Your task to perform on an android device: search for starred emails in the gmail app Image 0: 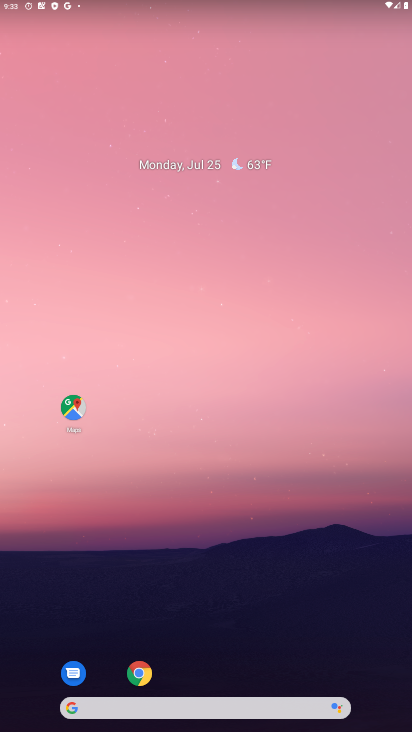
Step 0: click (397, 544)
Your task to perform on an android device: search for starred emails in the gmail app Image 1: 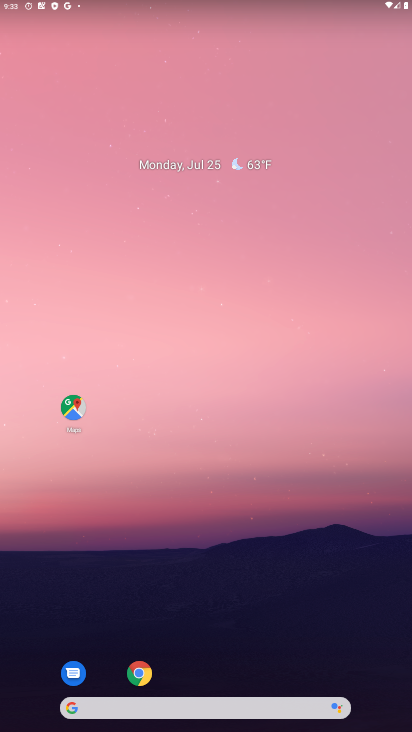
Step 1: drag from (244, 398) to (276, 311)
Your task to perform on an android device: search for starred emails in the gmail app Image 2: 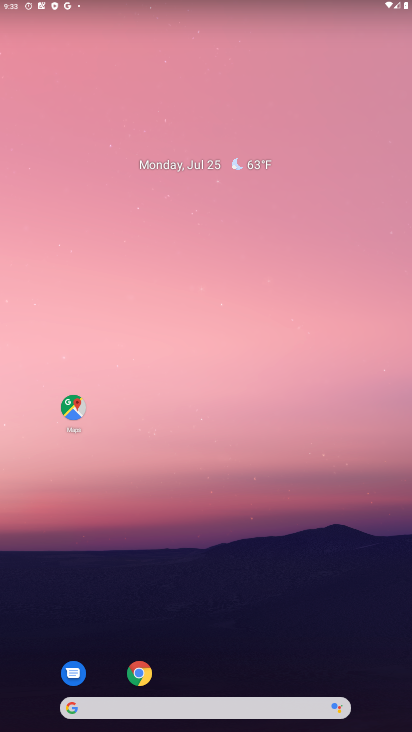
Step 2: drag from (220, 641) to (255, 258)
Your task to perform on an android device: search for starred emails in the gmail app Image 3: 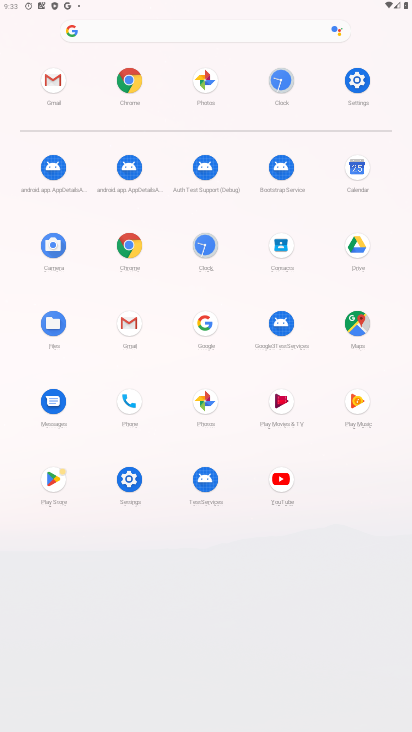
Step 3: click (118, 322)
Your task to perform on an android device: search for starred emails in the gmail app Image 4: 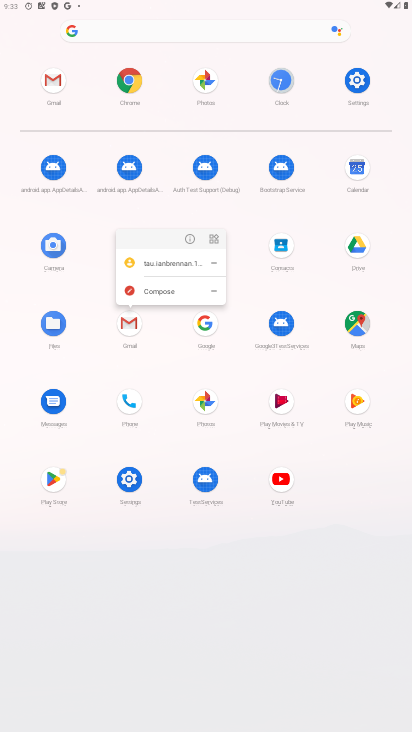
Step 4: click (187, 233)
Your task to perform on an android device: search for starred emails in the gmail app Image 5: 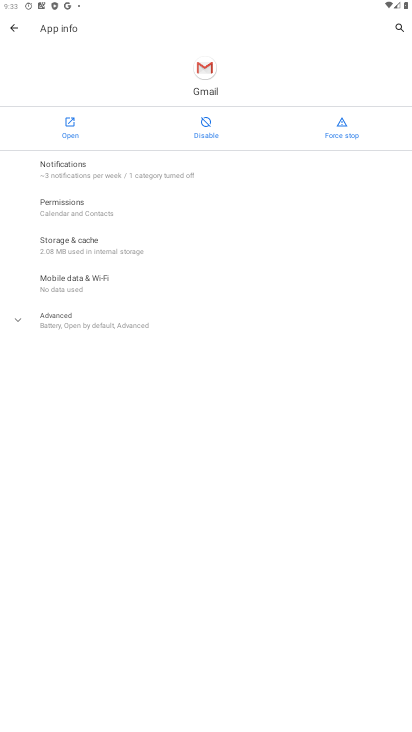
Step 5: click (62, 129)
Your task to perform on an android device: search for starred emails in the gmail app Image 6: 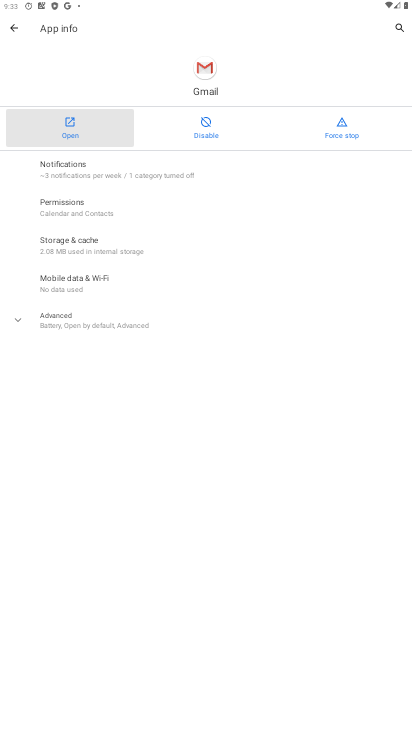
Step 6: click (62, 129)
Your task to perform on an android device: search for starred emails in the gmail app Image 7: 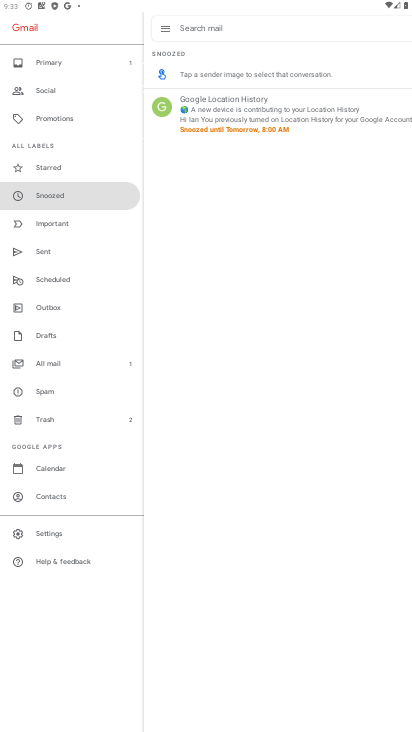
Step 7: click (75, 171)
Your task to perform on an android device: search for starred emails in the gmail app Image 8: 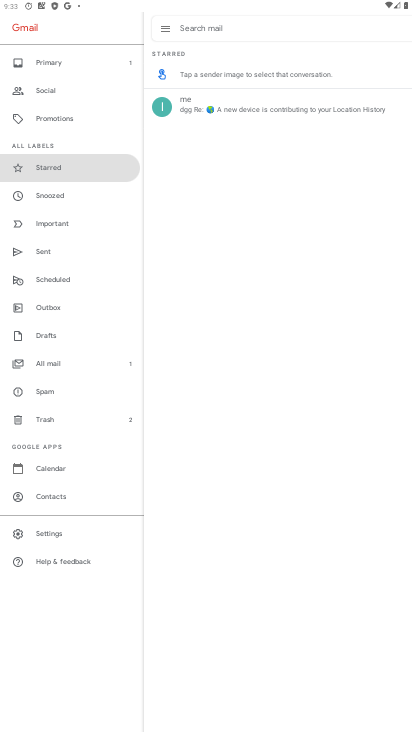
Step 8: task complete